Your task to perform on an android device: Toggle the flashlight Image 0: 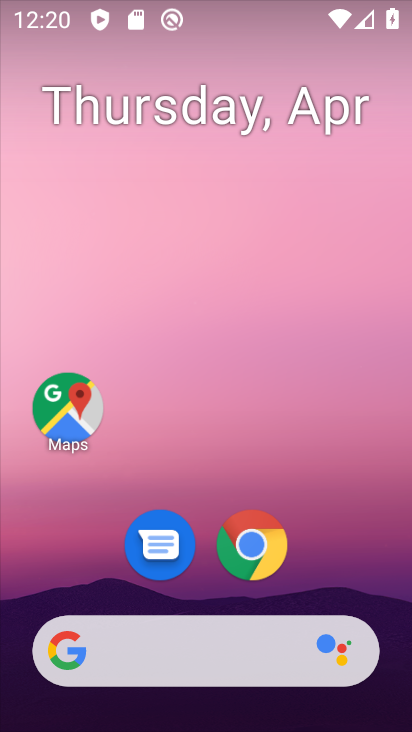
Step 0: click (256, 544)
Your task to perform on an android device: Toggle the flashlight Image 1: 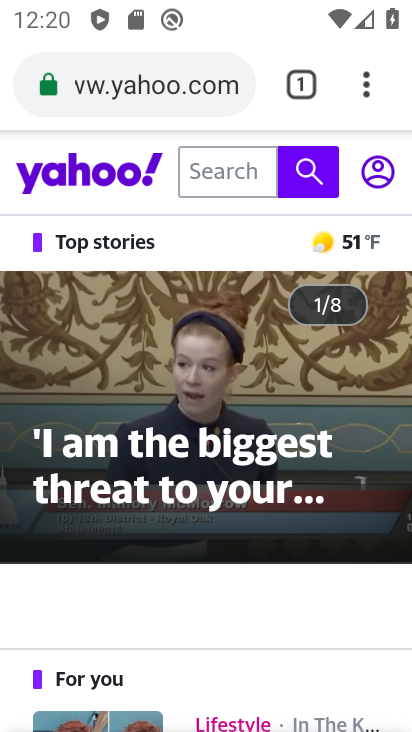
Step 1: click (184, 93)
Your task to perform on an android device: Toggle the flashlight Image 2: 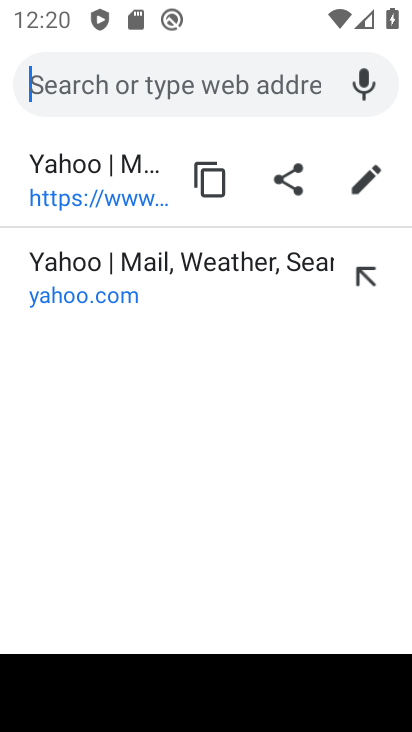
Step 2: type "ebay"
Your task to perform on an android device: Toggle the flashlight Image 3: 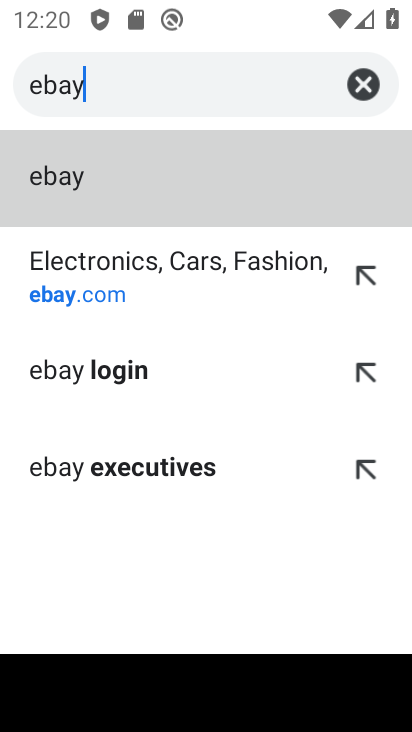
Step 3: click (90, 296)
Your task to perform on an android device: Toggle the flashlight Image 4: 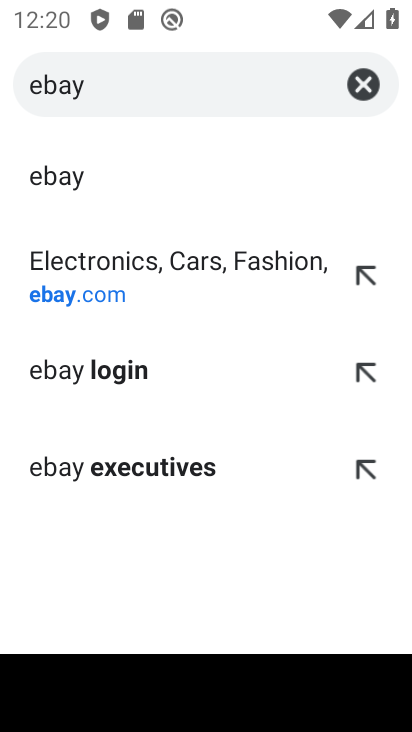
Step 4: click (50, 291)
Your task to perform on an android device: Toggle the flashlight Image 5: 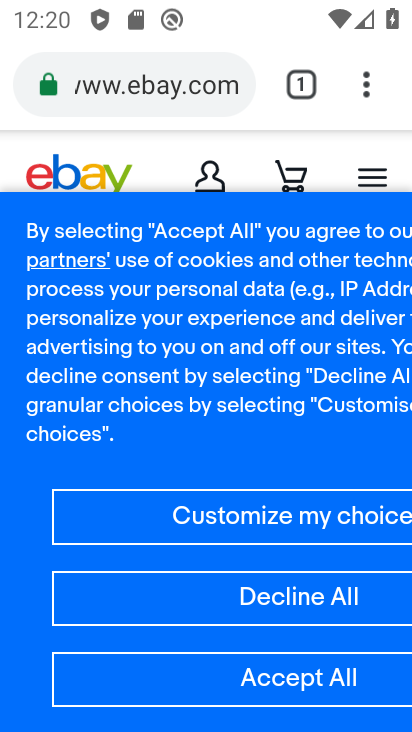
Step 5: task complete